Your task to perform on an android device: Open sound settings Image 0: 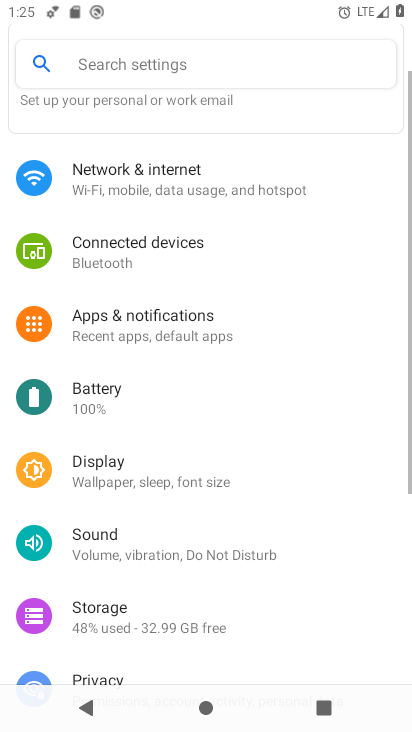
Step 0: click (230, 279)
Your task to perform on an android device: Open sound settings Image 1: 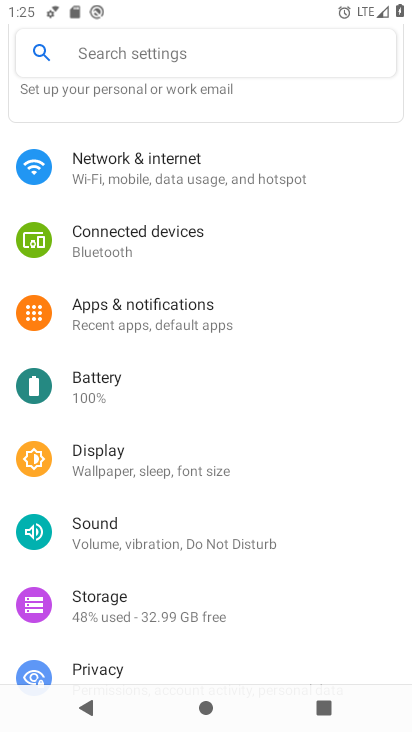
Step 1: click (90, 533)
Your task to perform on an android device: Open sound settings Image 2: 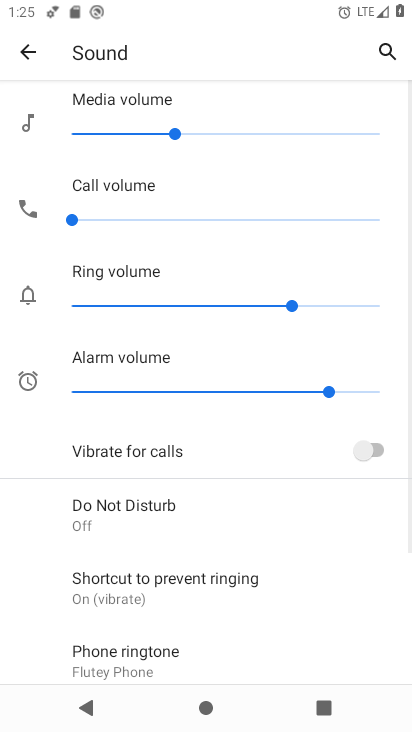
Step 2: task complete